Your task to perform on an android device: Go to Amazon Image 0: 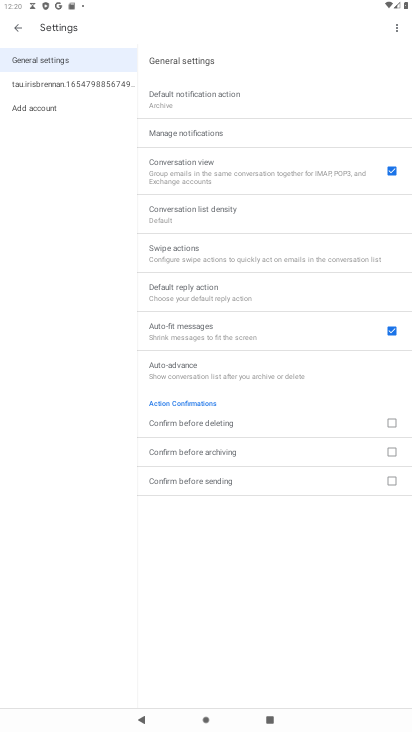
Step 0: press home button
Your task to perform on an android device: Go to Amazon Image 1: 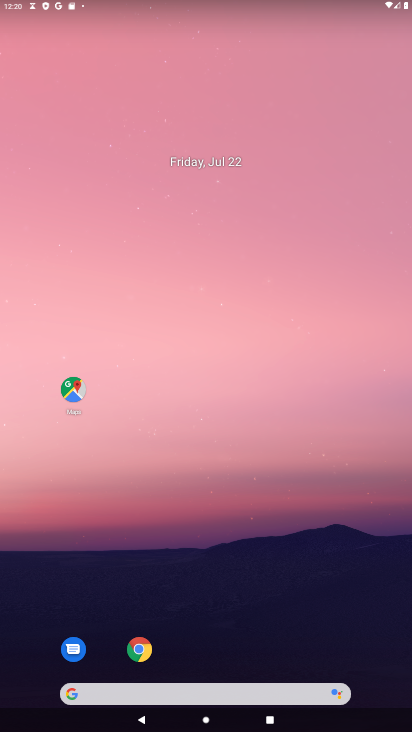
Step 1: drag from (284, 617) to (269, 577)
Your task to perform on an android device: Go to Amazon Image 2: 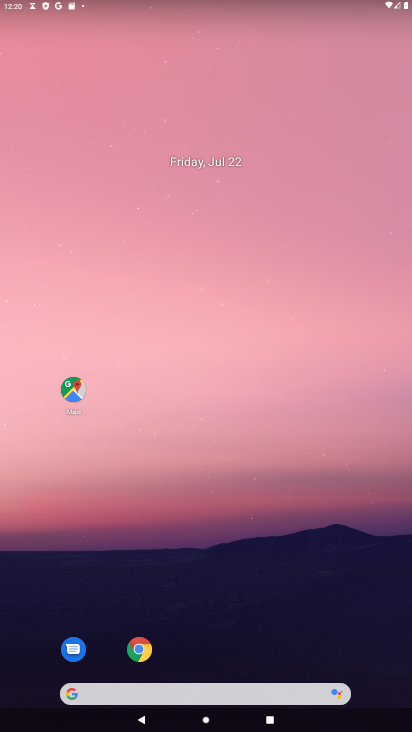
Step 2: click (139, 645)
Your task to perform on an android device: Go to Amazon Image 3: 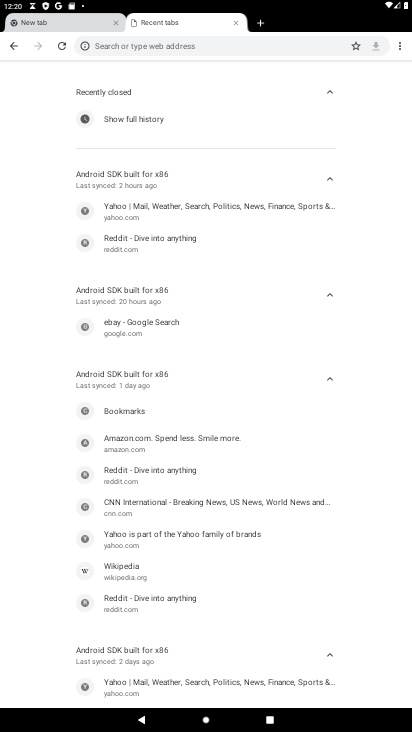
Step 3: click (88, 18)
Your task to perform on an android device: Go to Amazon Image 4: 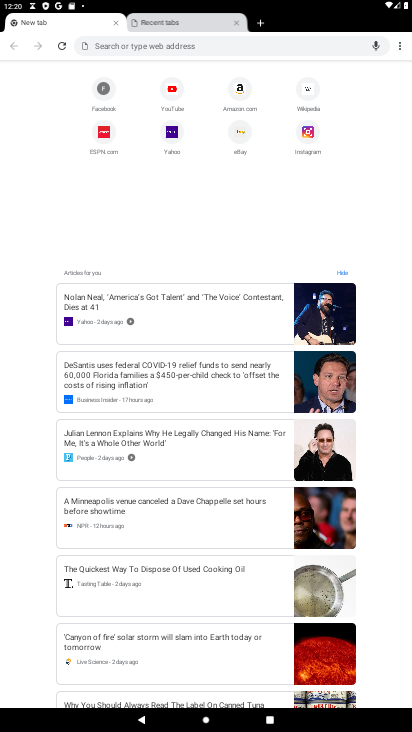
Step 4: click (237, 23)
Your task to perform on an android device: Go to Amazon Image 5: 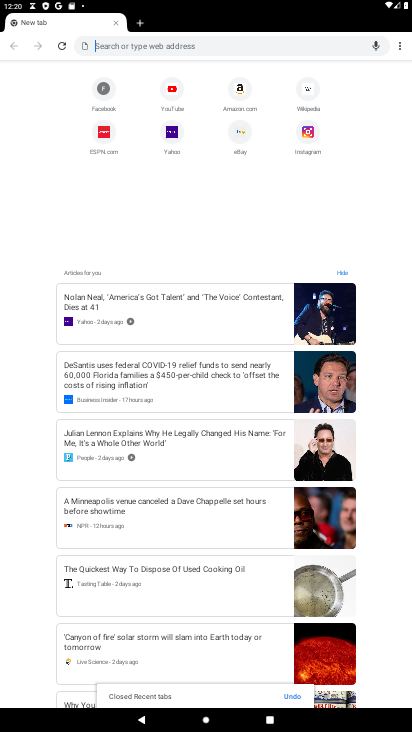
Step 5: click (238, 91)
Your task to perform on an android device: Go to Amazon Image 6: 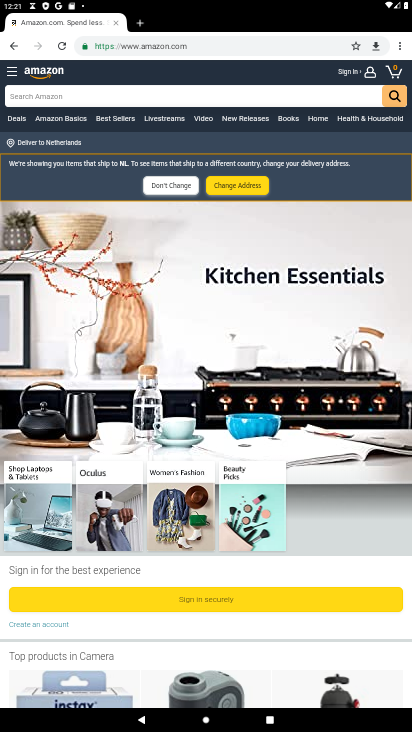
Step 6: task complete